Your task to perform on an android device: Open the stopwatch Image 0: 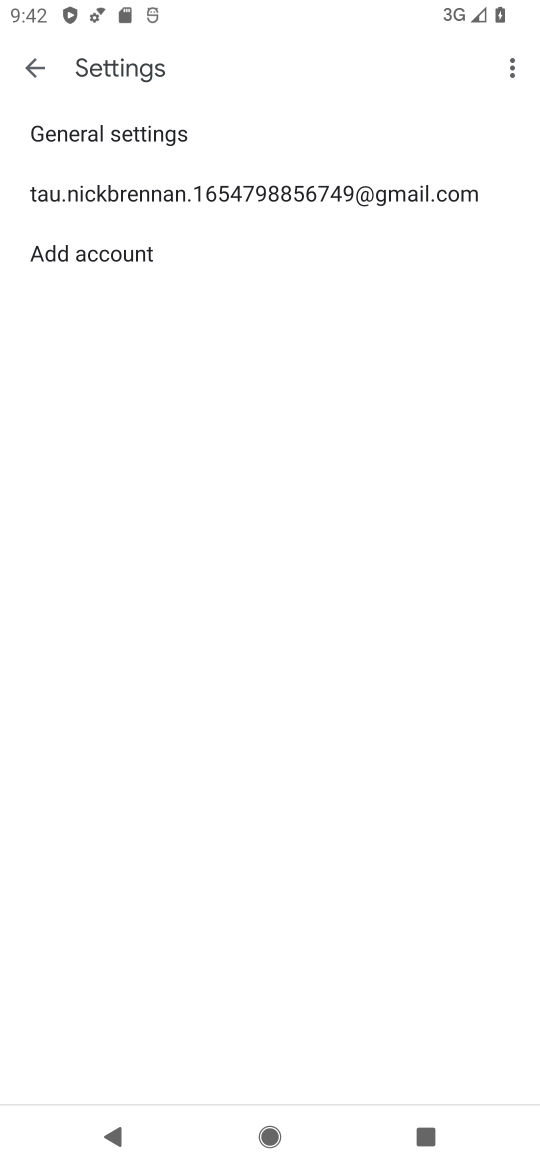
Step 0: press home button
Your task to perform on an android device: Open the stopwatch Image 1: 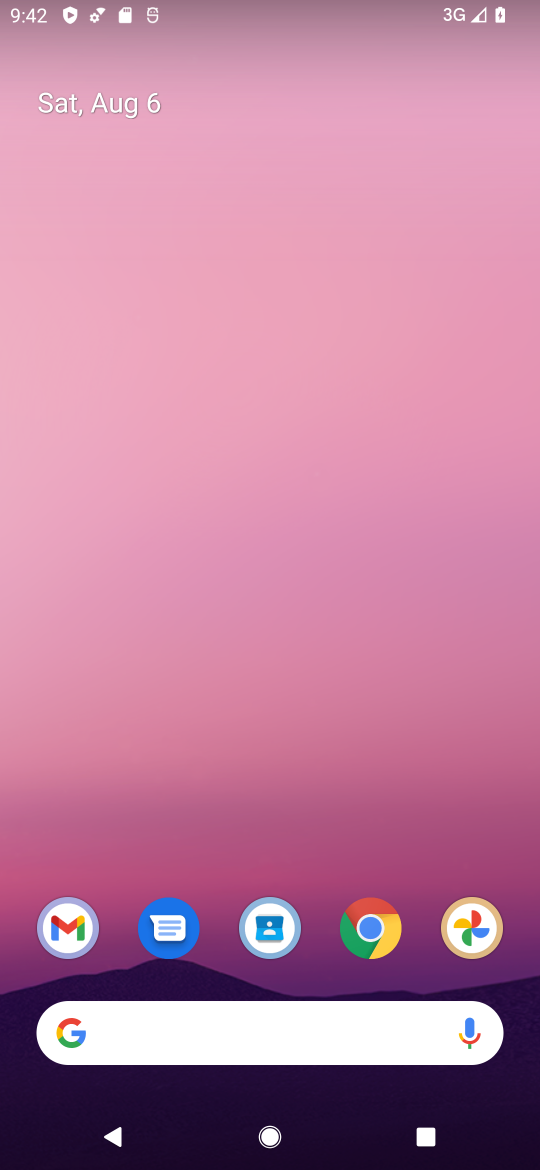
Step 1: drag from (288, 307) to (288, 142)
Your task to perform on an android device: Open the stopwatch Image 2: 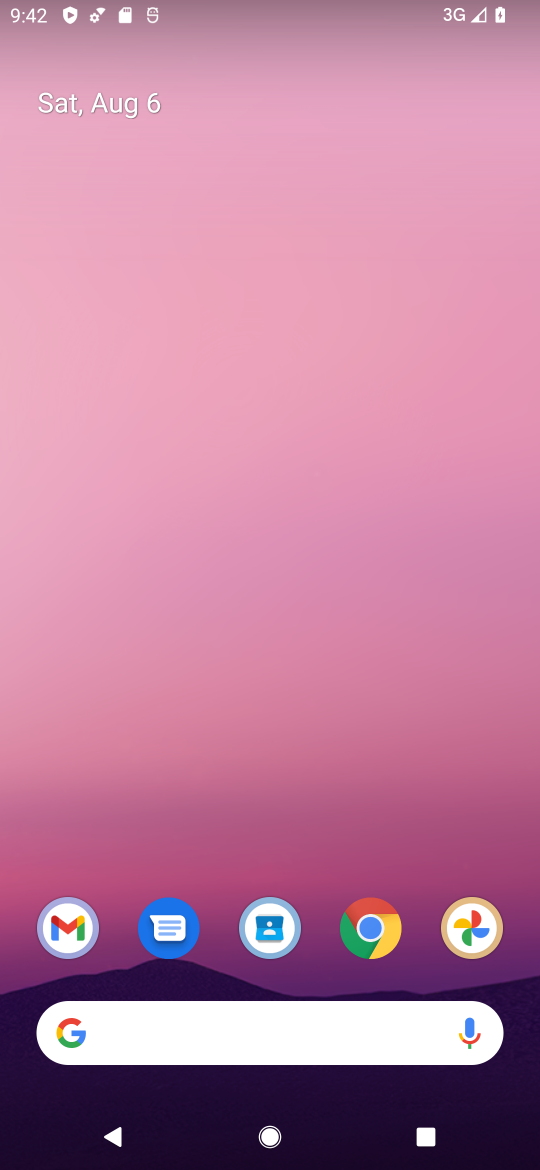
Step 2: drag from (231, 707) to (252, 154)
Your task to perform on an android device: Open the stopwatch Image 3: 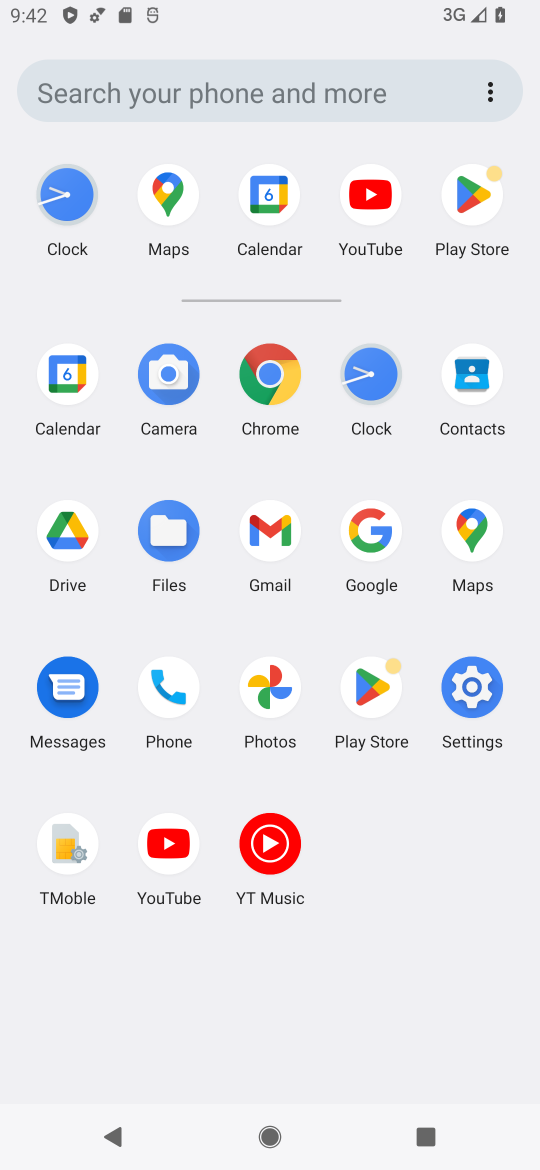
Step 3: click (381, 364)
Your task to perform on an android device: Open the stopwatch Image 4: 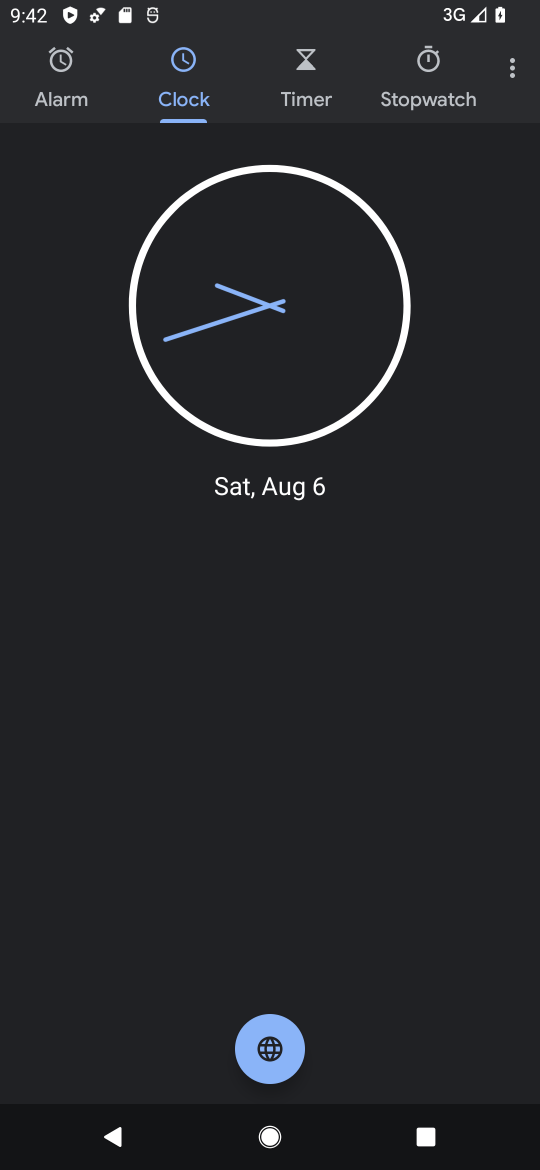
Step 4: click (433, 63)
Your task to perform on an android device: Open the stopwatch Image 5: 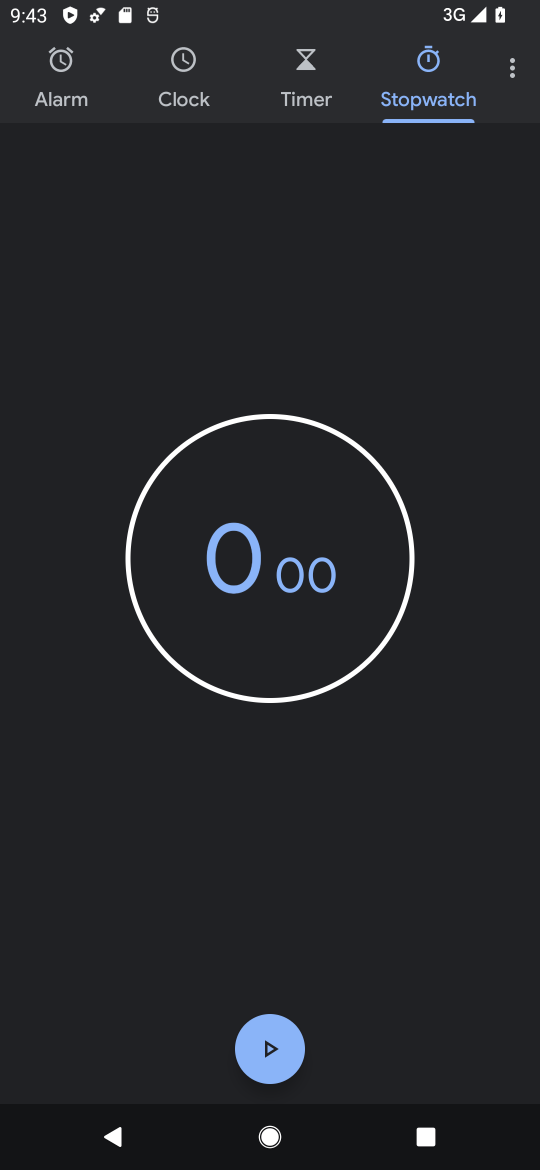
Step 5: task complete